Your task to perform on an android device: View the shopping cart on target.com. Image 0: 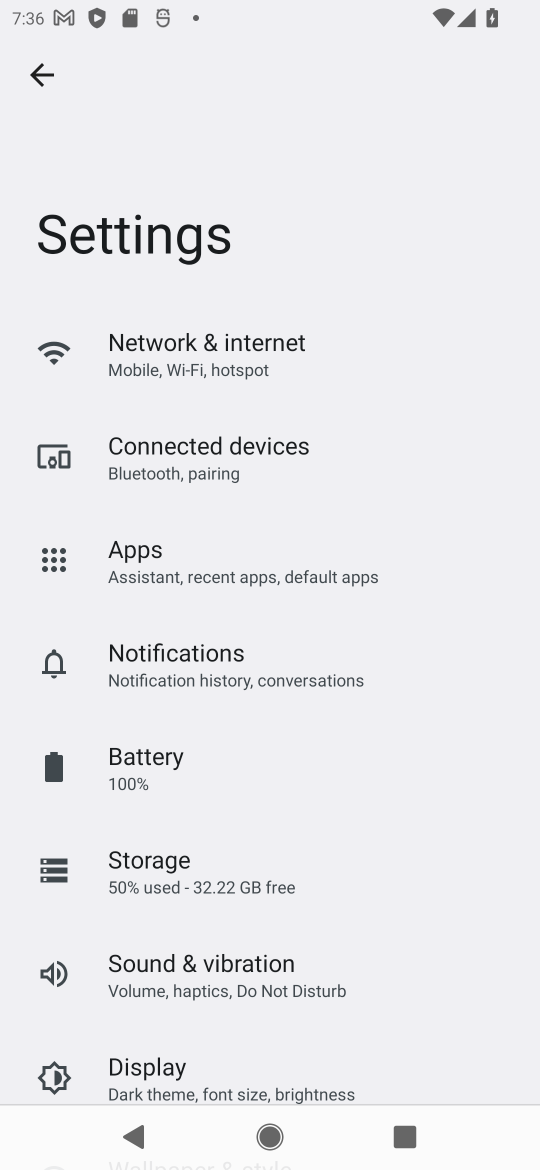
Step 0: press home button
Your task to perform on an android device: View the shopping cart on target.com. Image 1: 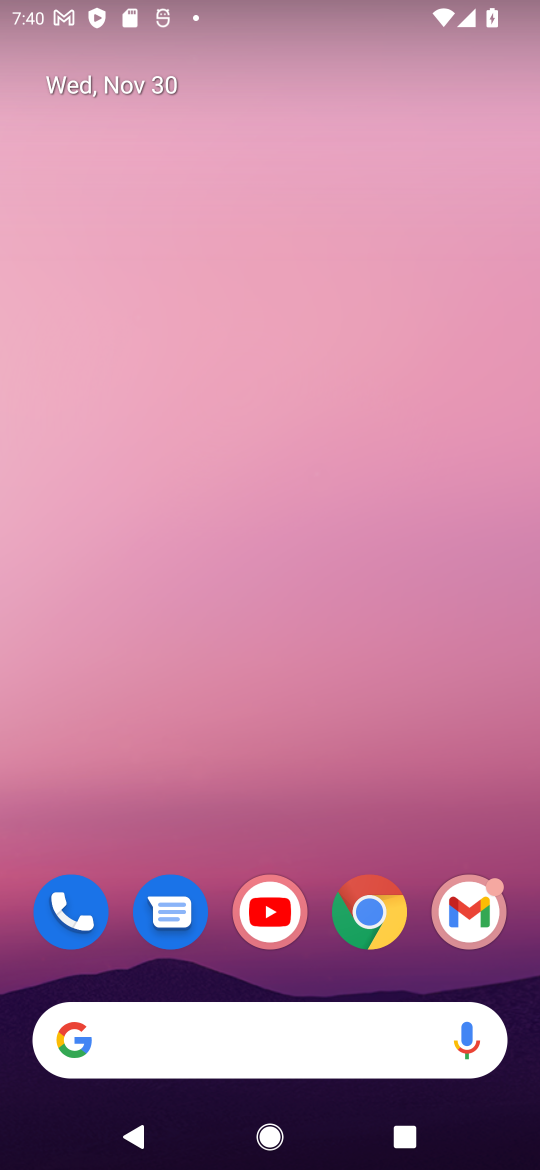
Step 1: click (258, 1028)
Your task to perform on an android device: View the shopping cart on target.com. Image 2: 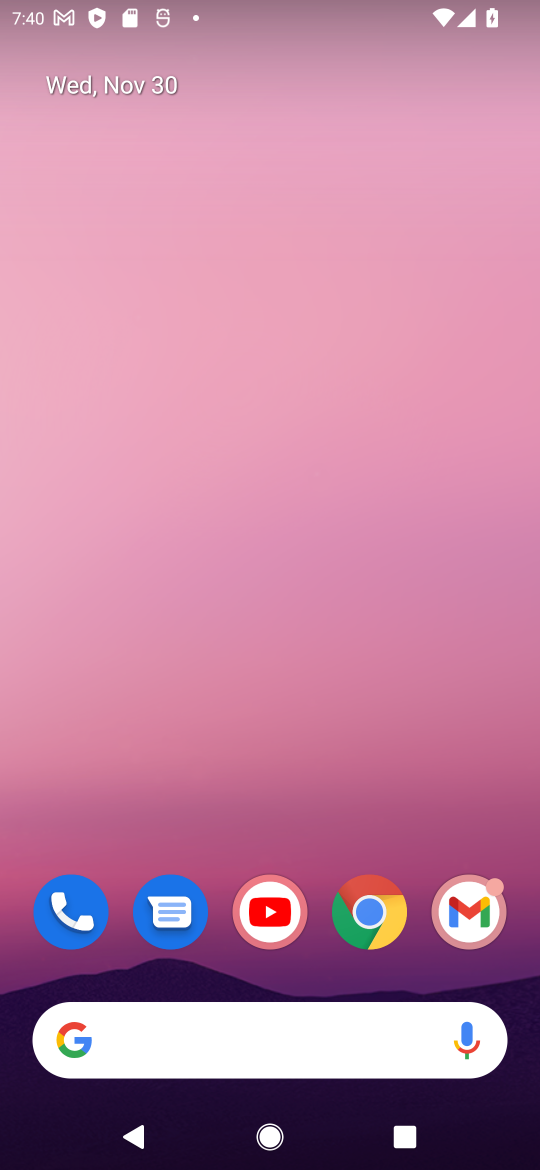
Step 2: click (258, 1028)
Your task to perform on an android device: View the shopping cart on target.com. Image 3: 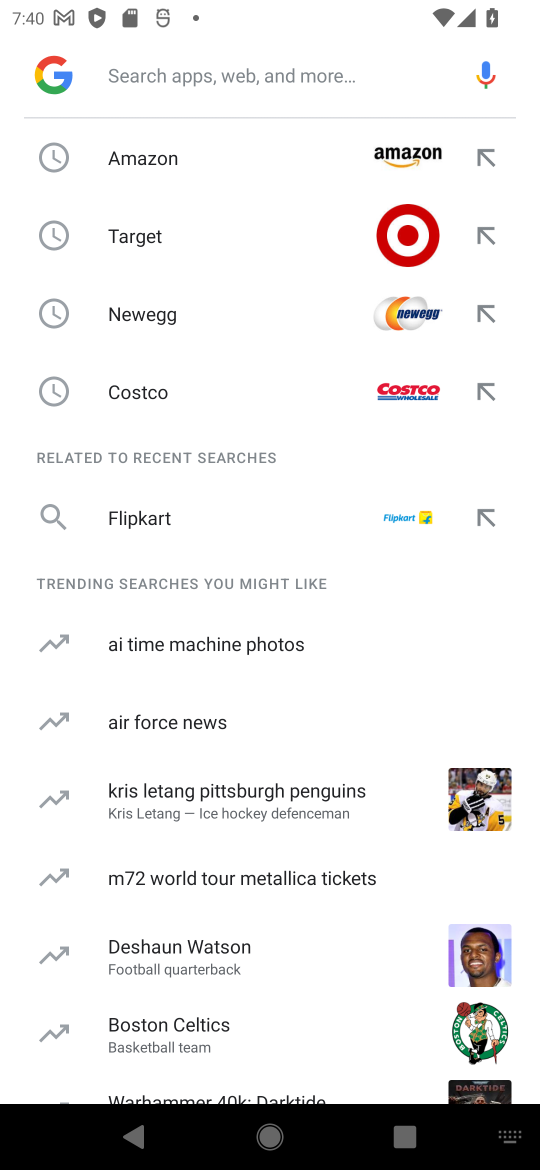
Step 3: click (246, 1028)
Your task to perform on an android device: View the shopping cart on target.com. Image 4: 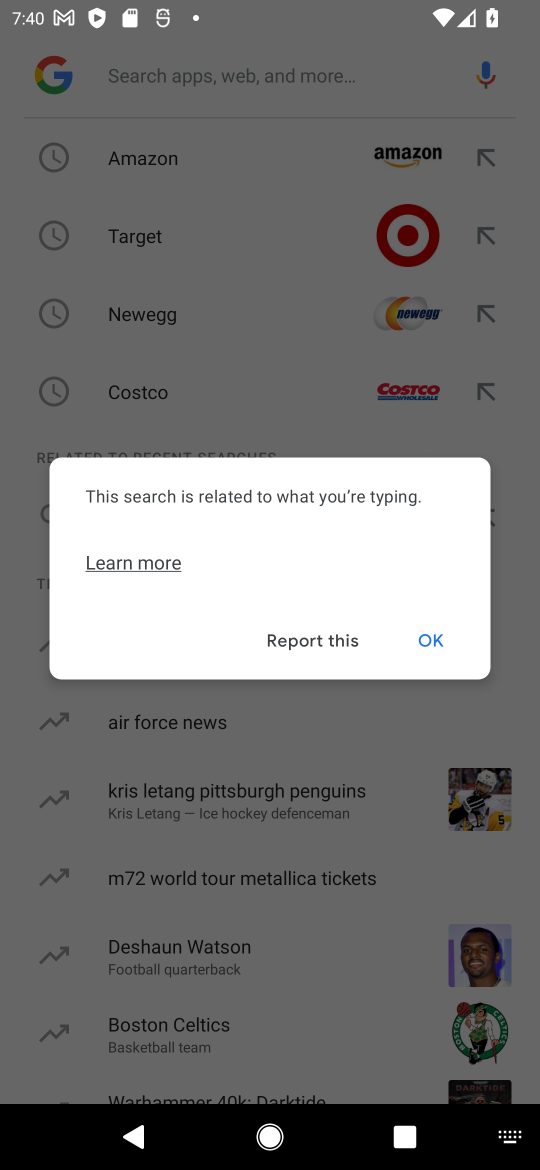
Step 4: click (151, 230)
Your task to perform on an android device: View the shopping cart on target.com. Image 5: 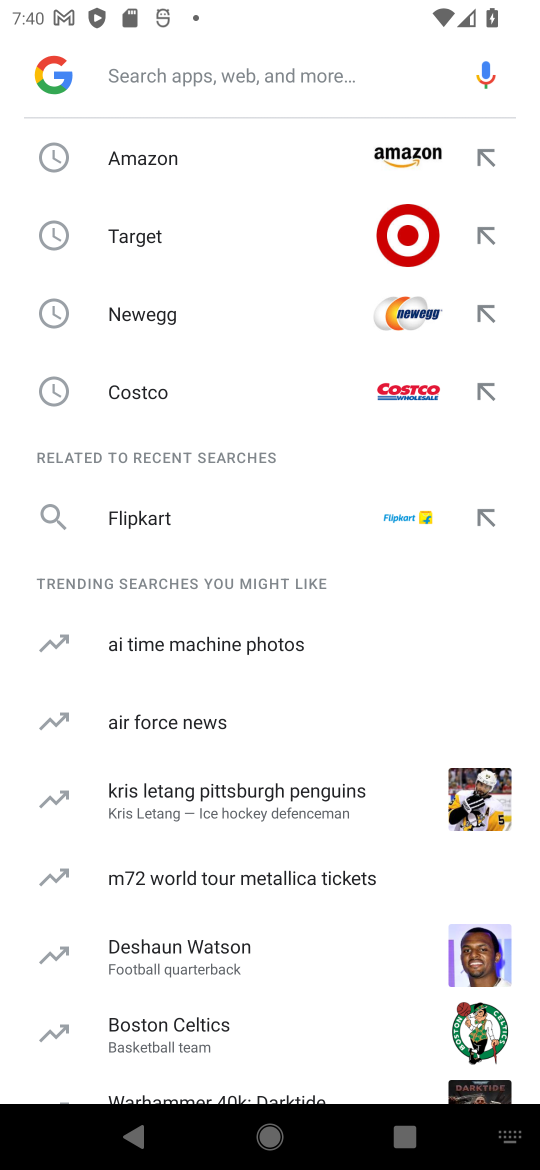
Step 5: click (204, 233)
Your task to perform on an android device: View the shopping cart on target.com. Image 6: 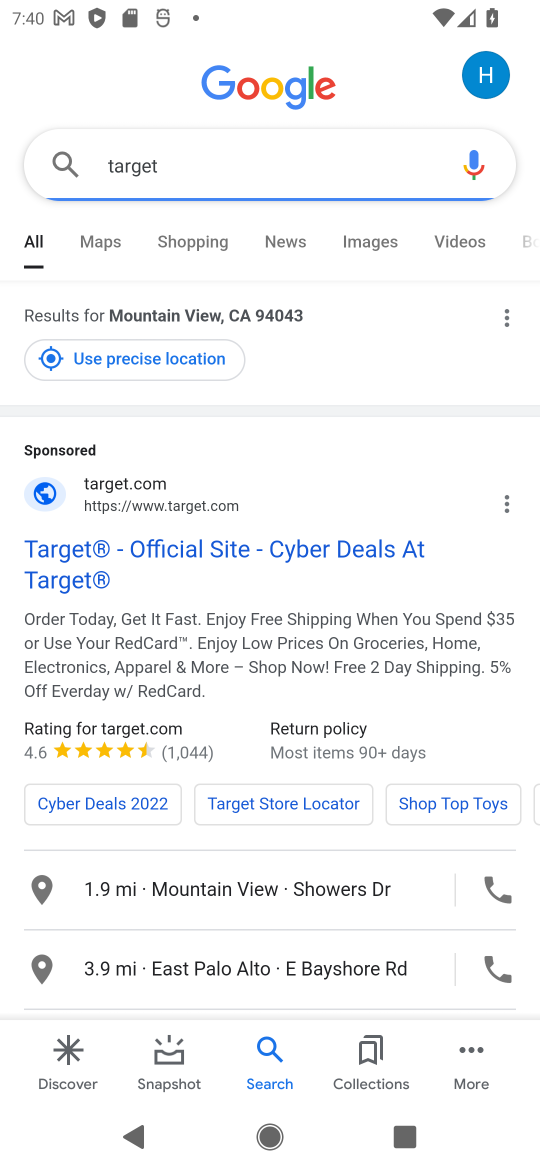
Step 6: click (140, 233)
Your task to perform on an android device: View the shopping cart on target.com. Image 7: 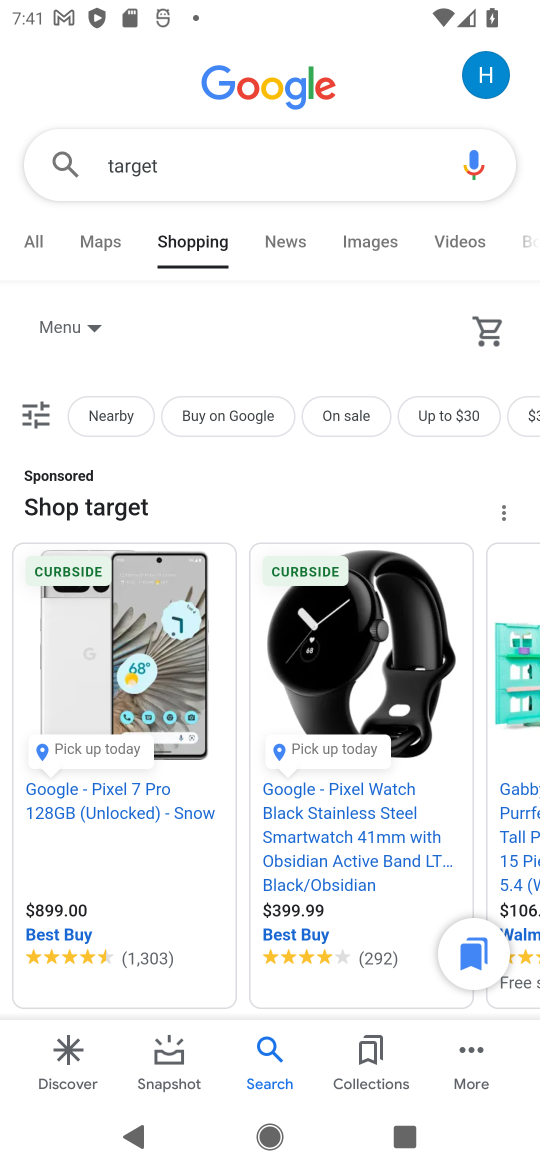
Step 7: click (262, 323)
Your task to perform on an android device: View the shopping cart on target.com. Image 8: 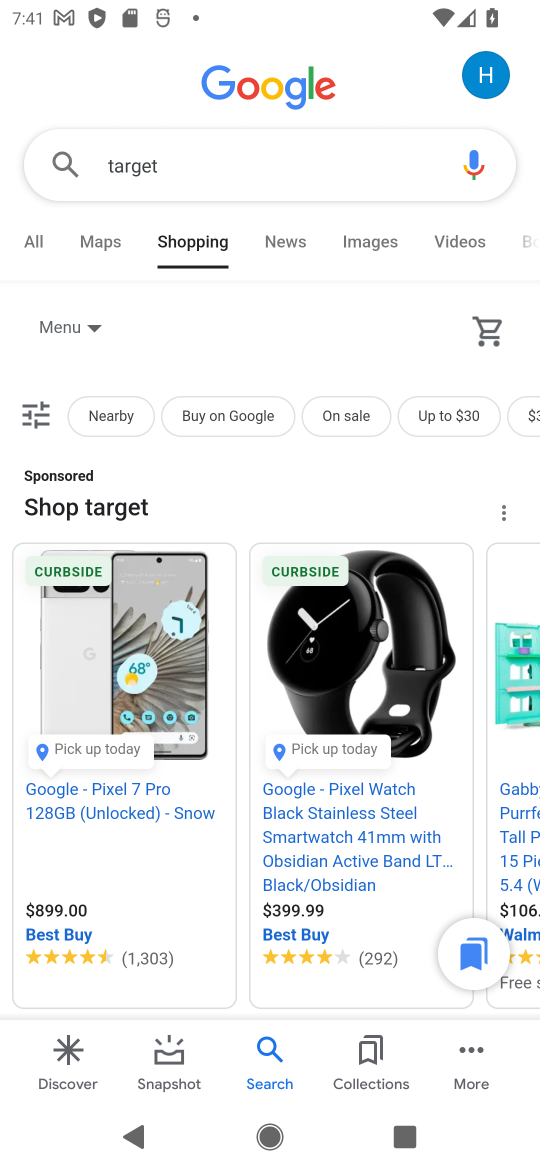
Step 8: drag from (388, 856) to (397, 509)
Your task to perform on an android device: View the shopping cart on target.com. Image 9: 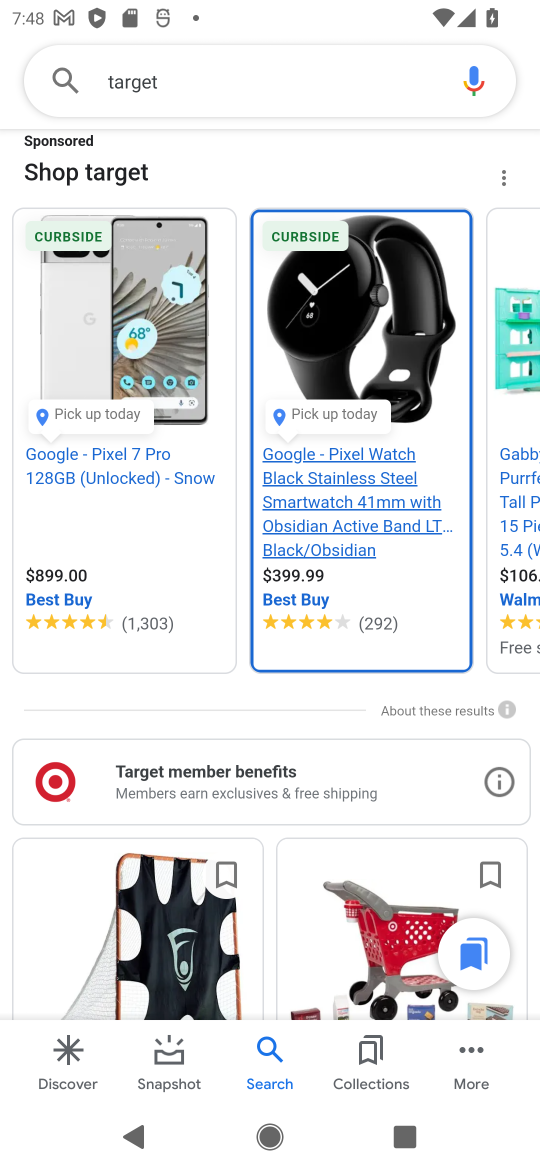
Step 9: press home button
Your task to perform on an android device: View the shopping cart on target.com. Image 10: 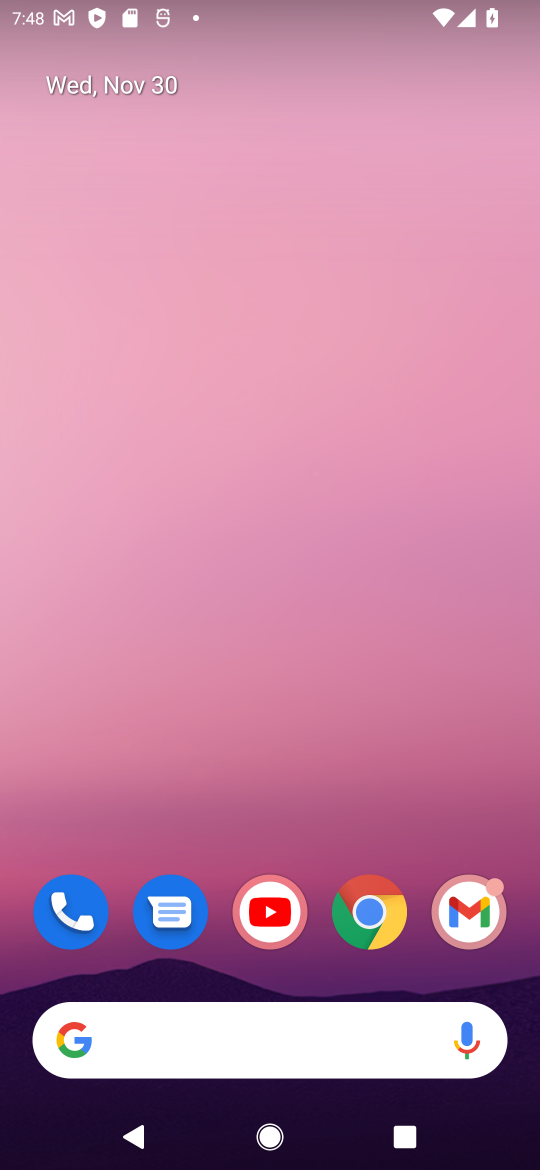
Step 10: click (239, 1033)
Your task to perform on an android device: View the shopping cart on target.com. Image 11: 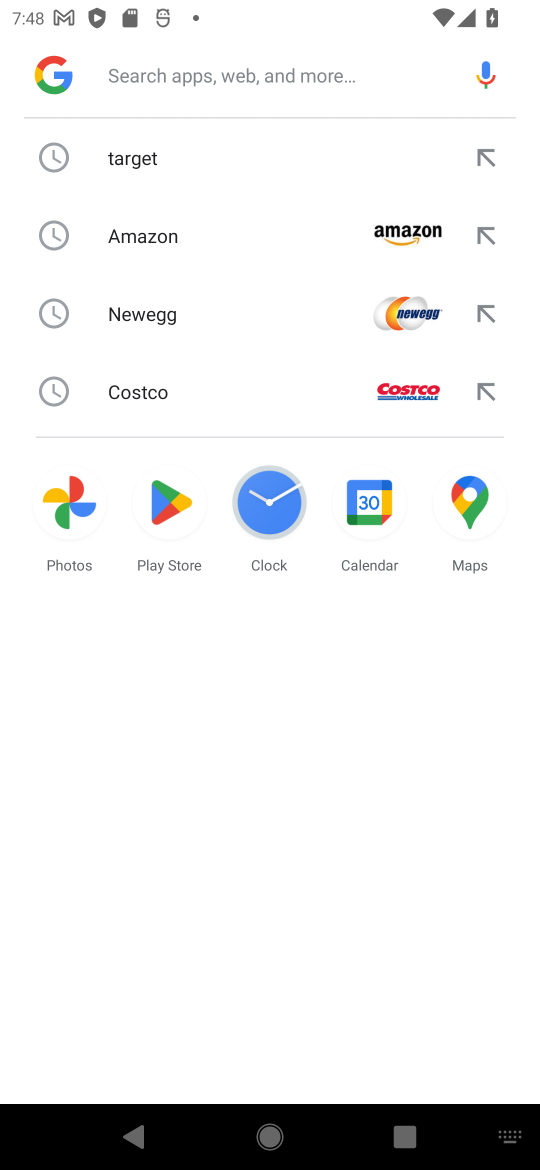
Step 11: click (125, 158)
Your task to perform on an android device: View the shopping cart on target.com. Image 12: 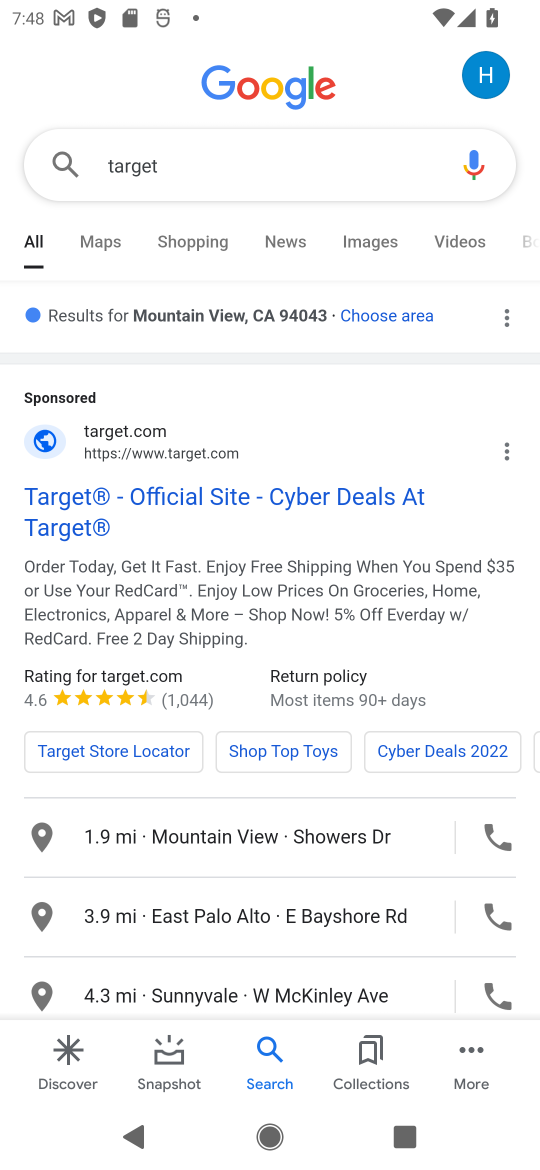
Step 12: drag from (140, 785) to (263, 364)
Your task to perform on an android device: View the shopping cart on target.com. Image 13: 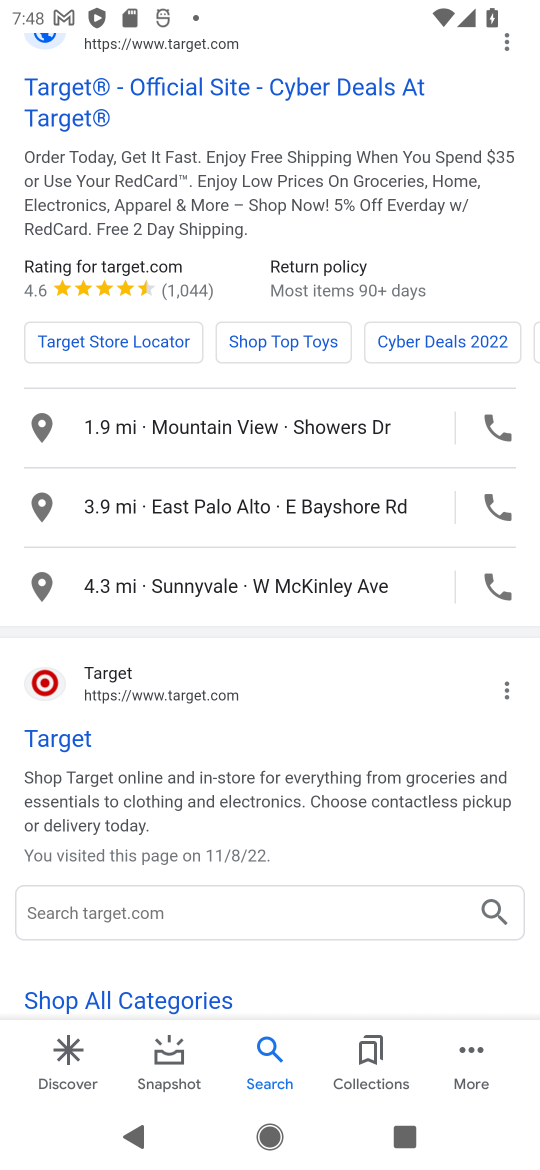
Step 13: click (110, 691)
Your task to perform on an android device: View the shopping cart on target.com. Image 14: 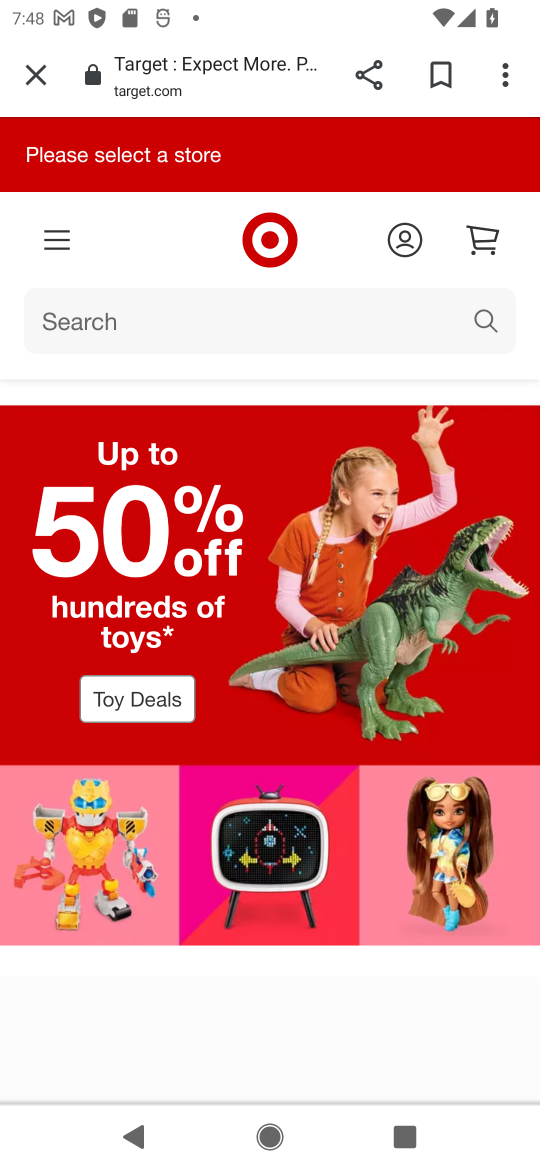
Step 14: click (227, 308)
Your task to perform on an android device: View the shopping cart on target.com. Image 15: 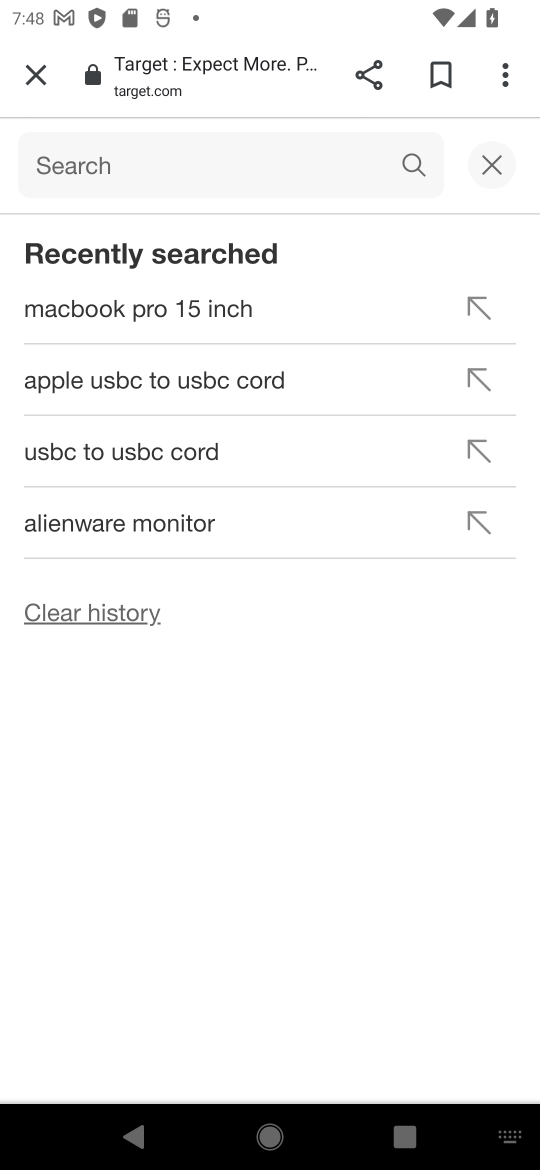
Step 15: click (495, 168)
Your task to perform on an android device: View the shopping cart on target.com. Image 16: 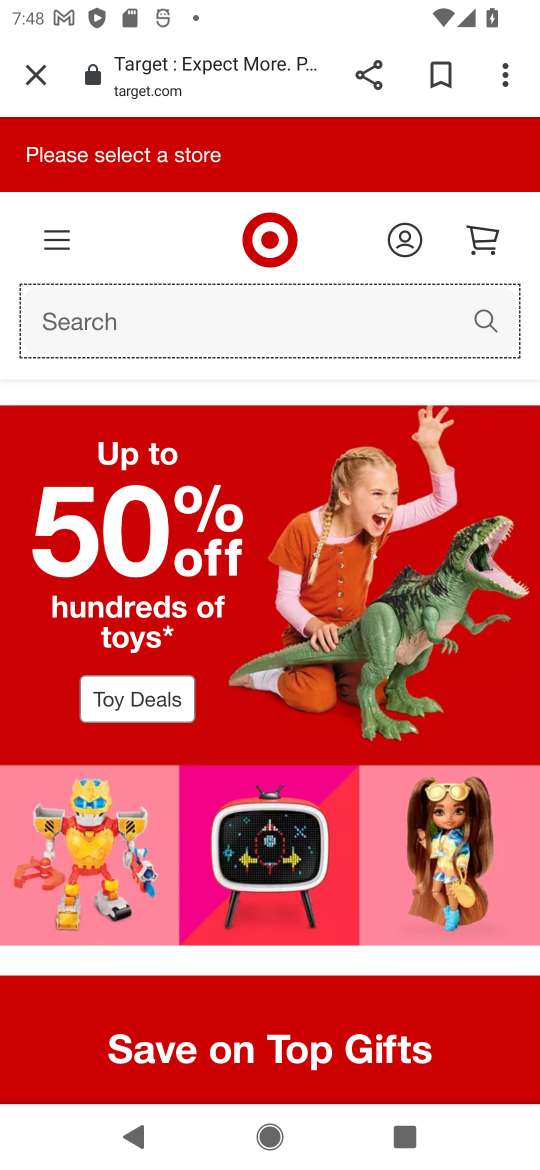
Step 16: click (492, 230)
Your task to perform on an android device: View the shopping cart on target.com. Image 17: 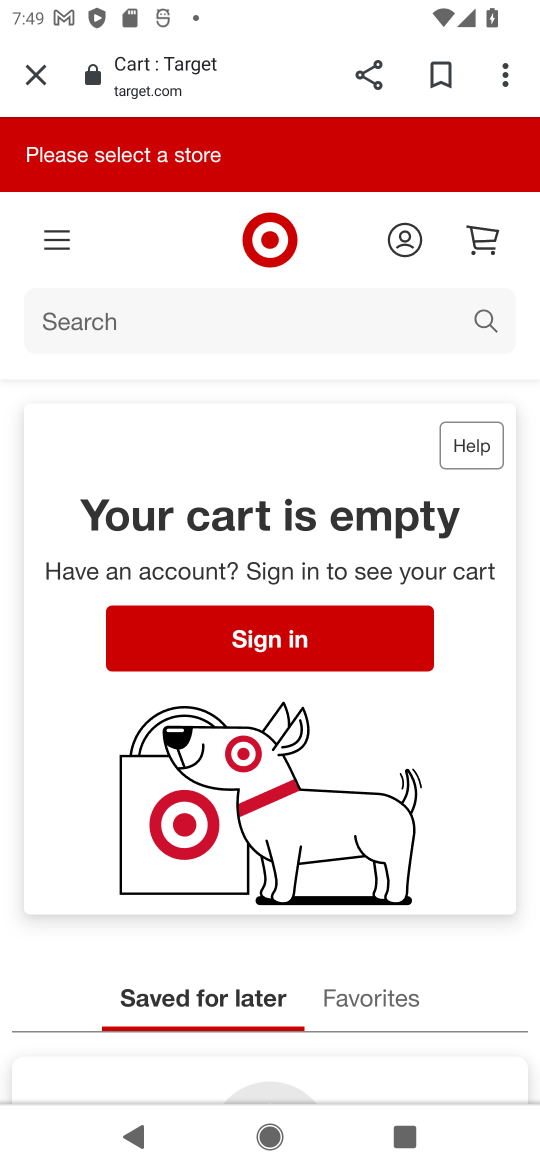
Step 17: task complete